Your task to perform on an android device: Open calendar and show me the third week of next month Image 0: 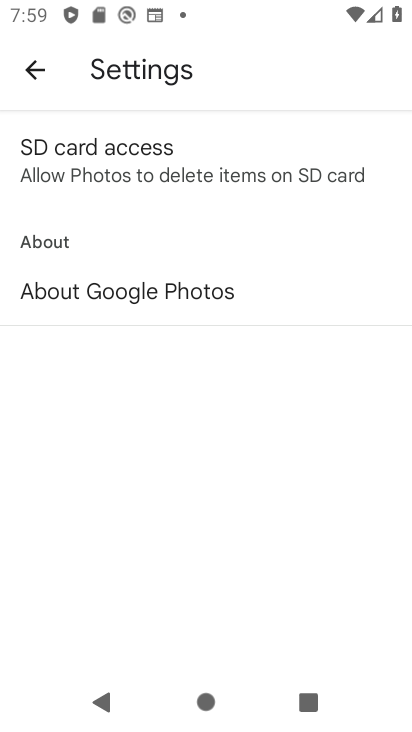
Step 0: press home button
Your task to perform on an android device: Open calendar and show me the third week of next month Image 1: 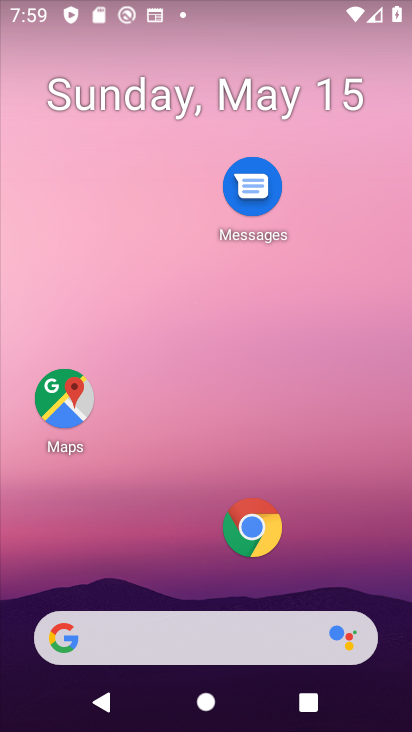
Step 1: drag from (130, 637) to (328, 114)
Your task to perform on an android device: Open calendar and show me the third week of next month Image 2: 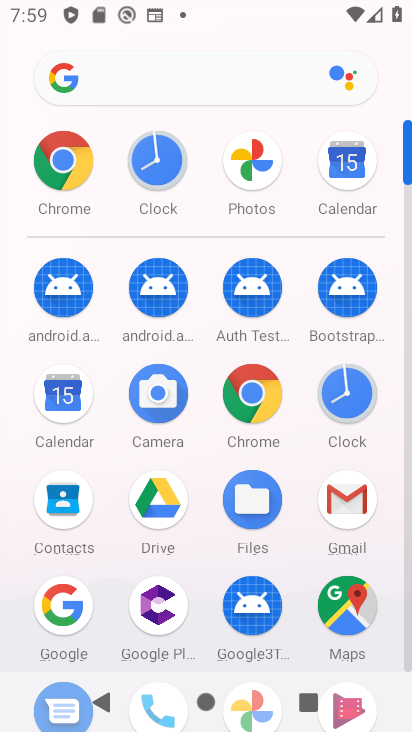
Step 2: click (60, 406)
Your task to perform on an android device: Open calendar and show me the third week of next month Image 3: 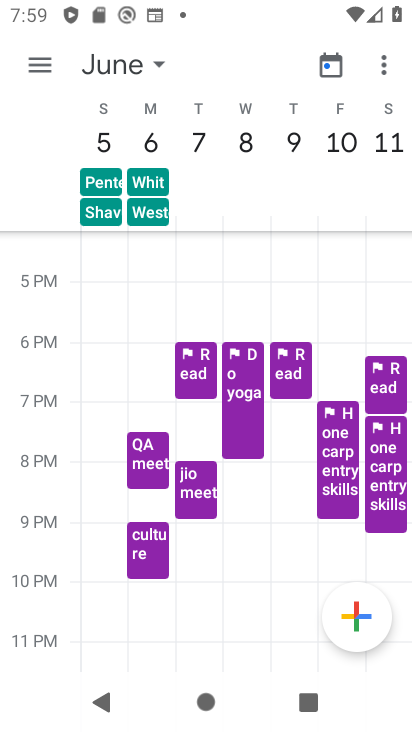
Step 3: click (107, 66)
Your task to perform on an android device: Open calendar and show me the third week of next month Image 4: 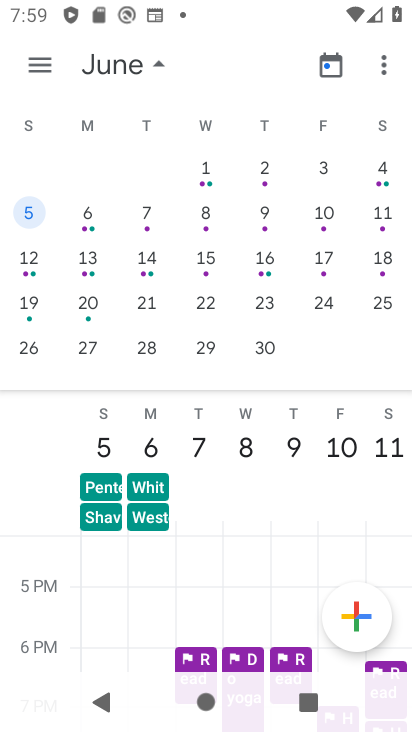
Step 4: click (35, 264)
Your task to perform on an android device: Open calendar and show me the third week of next month Image 5: 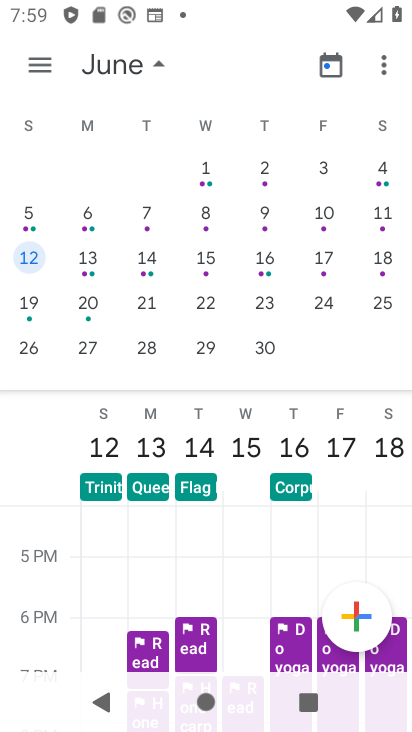
Step 5: click (40, 68)
Your task to perform on an android device: Open calendar and show me the third week of next month Image 6: 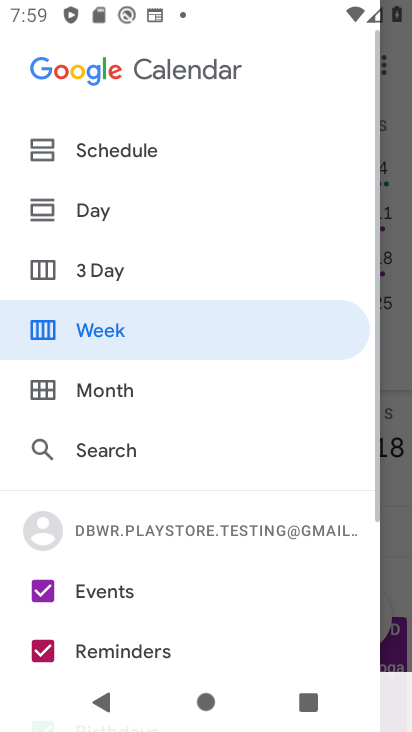
Step 6: click (124, 336)
Your task to perform on an android device: Open calendar and show me the third week of next month Image 7: 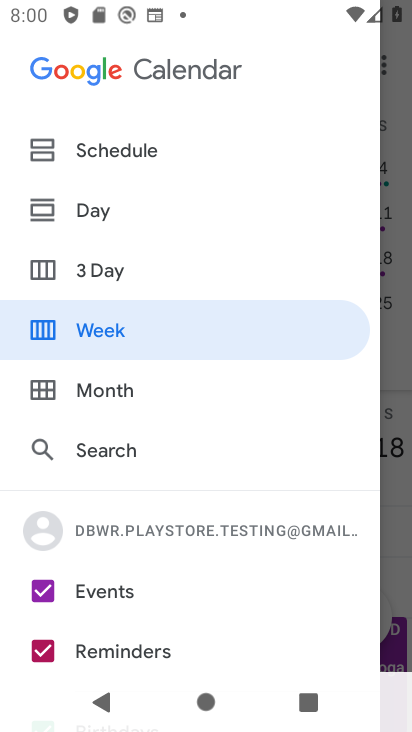
Step 7: click (136, 330)
Your task to perform on an android device: Open calendar and show me the third week of next month Image 8: 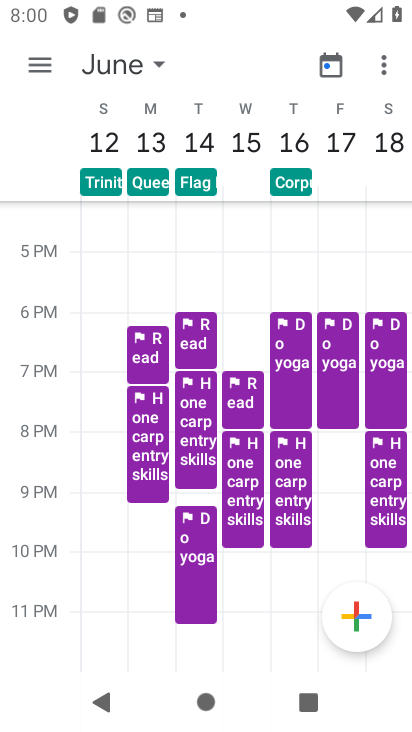
Step 8: task complete